Your task to perform on an android device: Check the news Image 0: 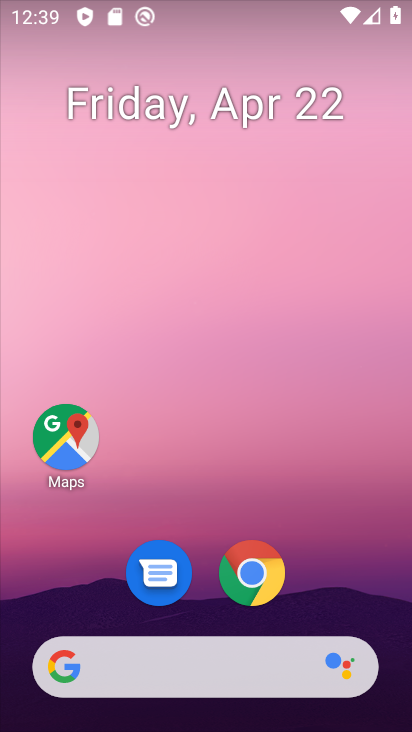
Step 0: drag from (93, 264) to (367, 253)
Your task to perform on an android device: Check the news Image 1: 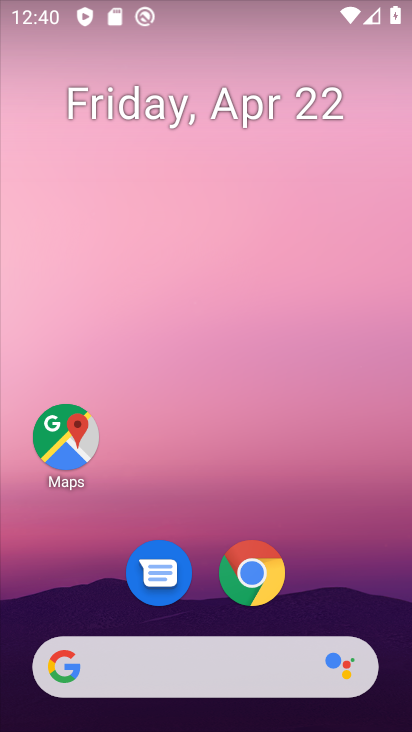
Step 1: drag from (92, 275) to (295, 277)
Your task to perform on an android device: Check the news Image 2: 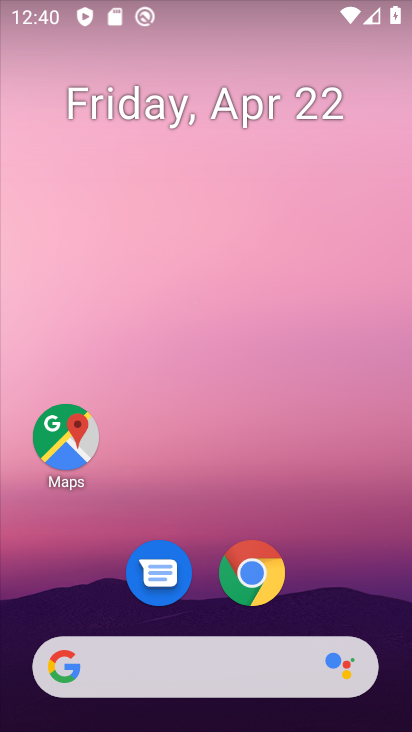
Step 2: drag from (35, 294) to (405, 287)
Your task to perform on an android device: Check the news Image 3: 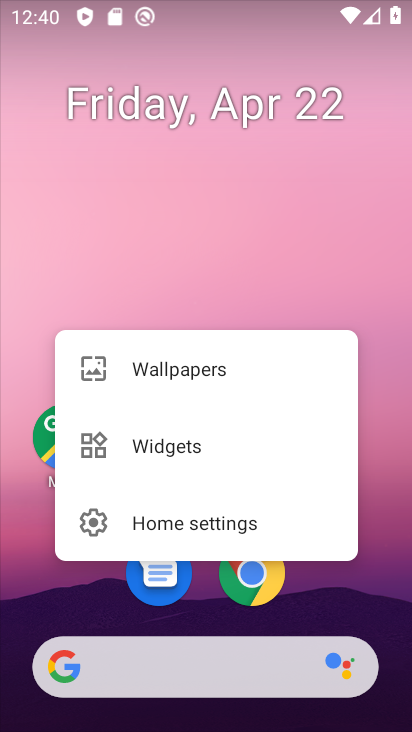
Step 3: drag from (6, 267) to (361, 260)
Your task to perform on an android device: Check the news Image 4: 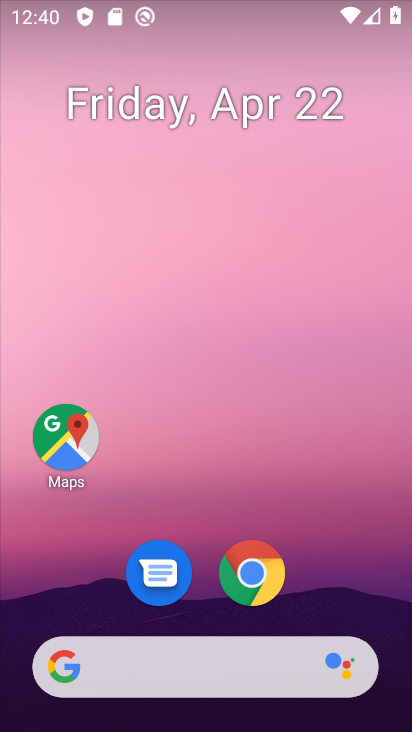
Step 4: drag from (18, 300) to (410, 324)
Your task to perform on an android device: Check the news Image 5: 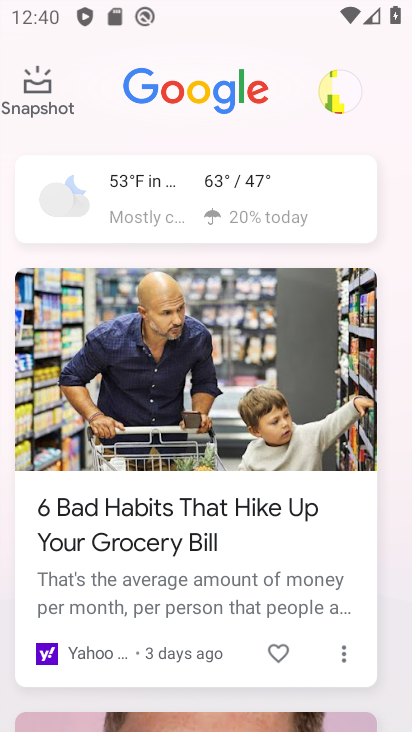
Step 5: click (394, 341)
Your task to perform on an android device: Check the news Image 6: 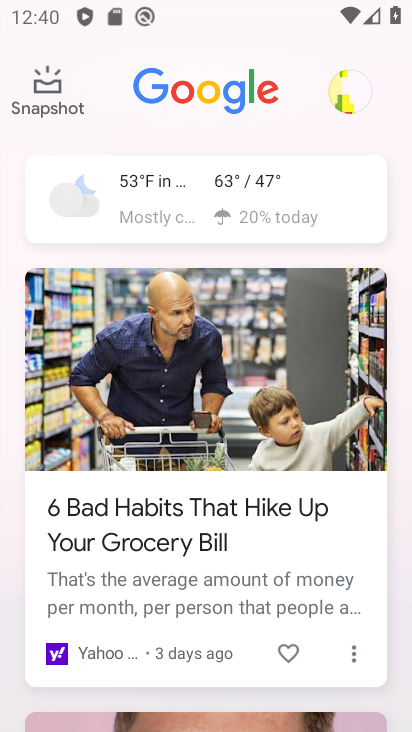
Step 6: task complete